Your task to perform on an android device: turn notification dots off Image 0: 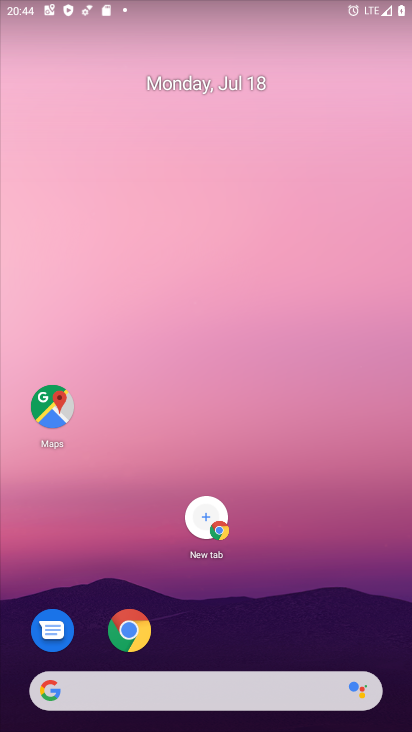
Step 0: drag from (198, 662) to (176, 332)
Your task to perform on an android device: turn notification dots off Image 1: 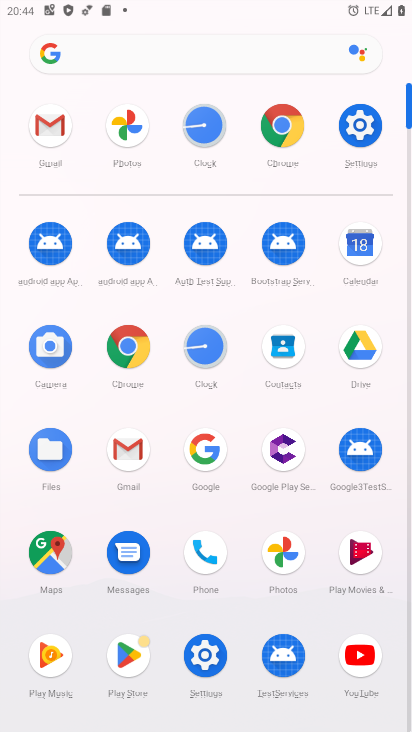
Step 1: click (349, 123)
Your task to perform on an android device: turn notification dots off Image 2: 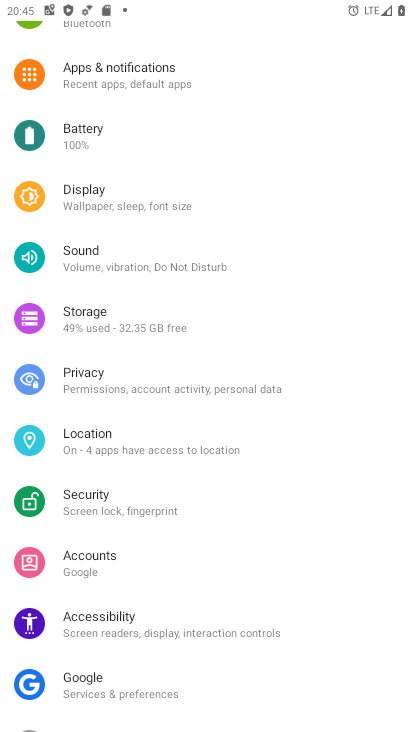
Step 2: click (93, 80)
Your task to perform on an android device: turn notification dots off Image 3: 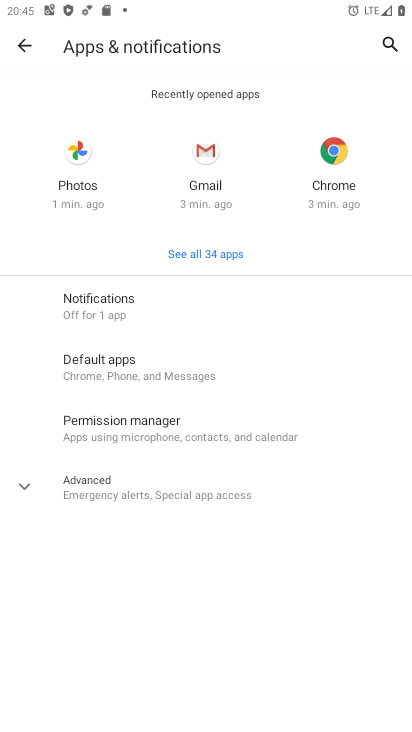
Step 3: click (90, 313)
Your task to perform on an android device: turn notification dots off Image 4: 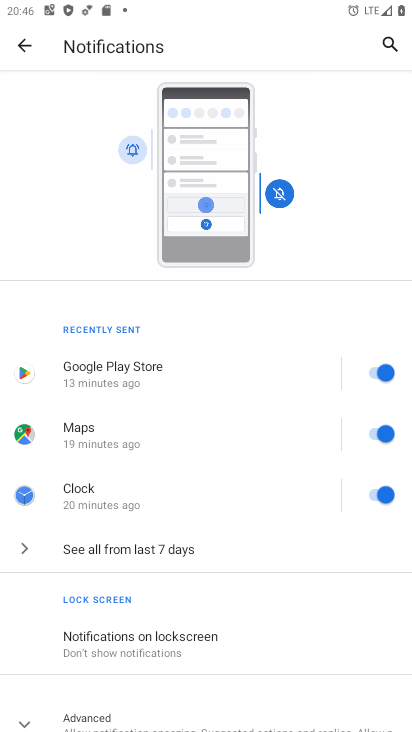
Step 4: drag from (110, 706) to (114, 378)
Your task to perform on an android device: turn notification dots off Image 5: 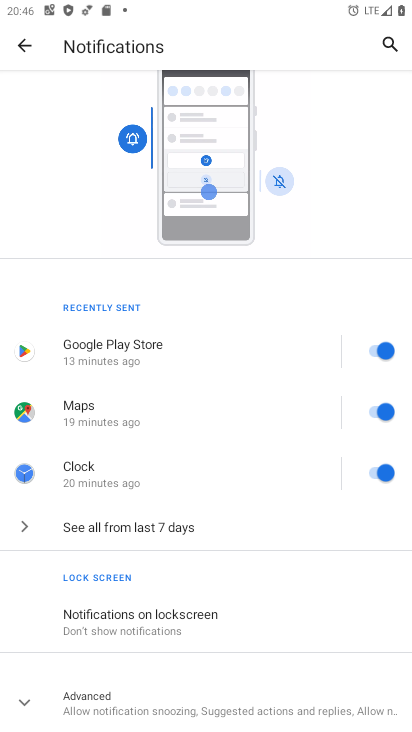
Step 5: click (91, 694)
Your task to perform on an android device: turn notification dots off Image 6: 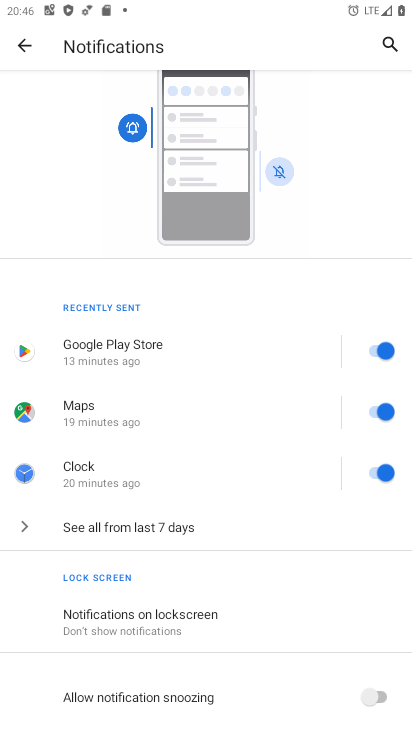
Step 6: drag from (134, 708) to (174, 364)
Your task to perform on an android device: turn notification dots off Image 7: 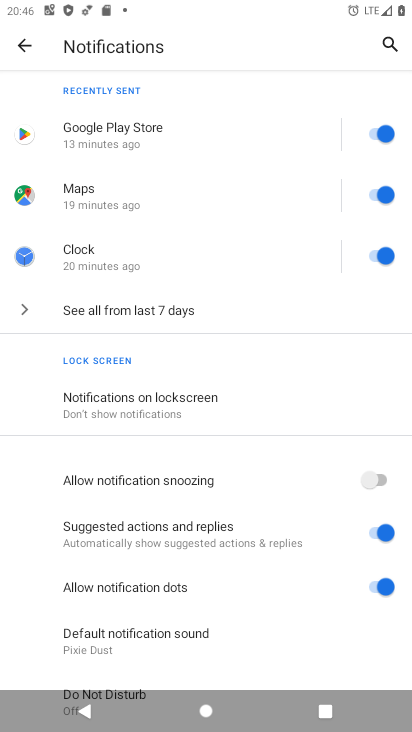
Step 7: click (365, 583)
Your task to perform on an android device: turn notification dots off Image 8: 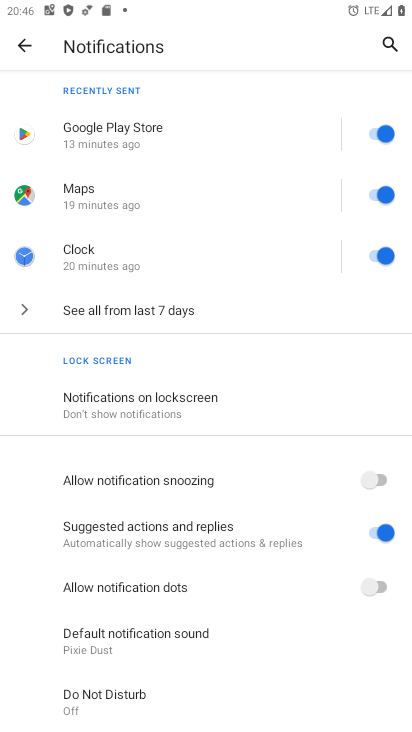
Step 8: task complete